Your task to perform on an android device: Search for seafood restaurants on Google Maps Image 0: 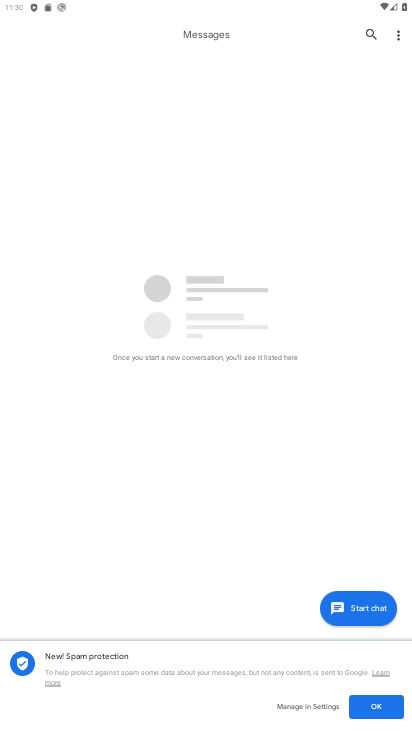
Step 0: press home button
Your task to perform on an android device: Search for seafood restaurants on Google Maps Image 1: 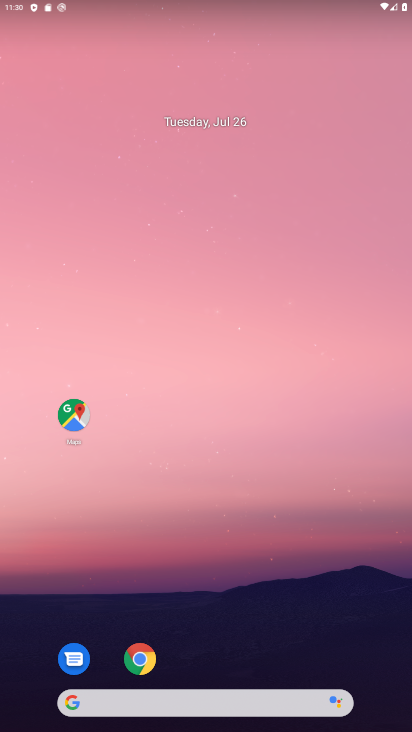
Step 1: drag from (196, 591) to (221, 152)
Your task to perform on an android device: Search for seafood restaurants on Google Maps Image 2: 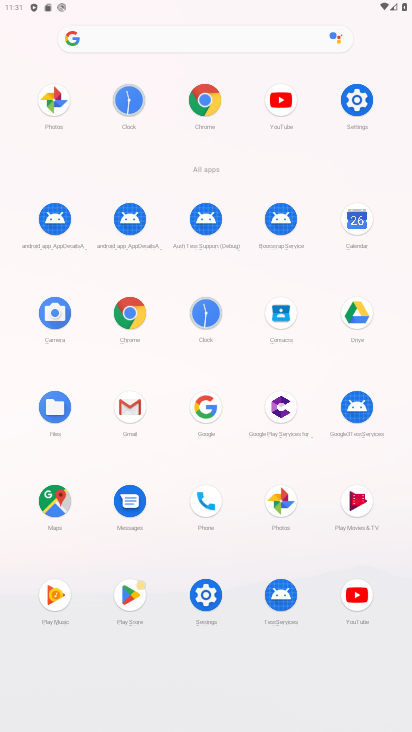
Step 2: click (60, 515)
Your task to perform on an android device: Search for seafood restaurants on Google Maps Image 3: 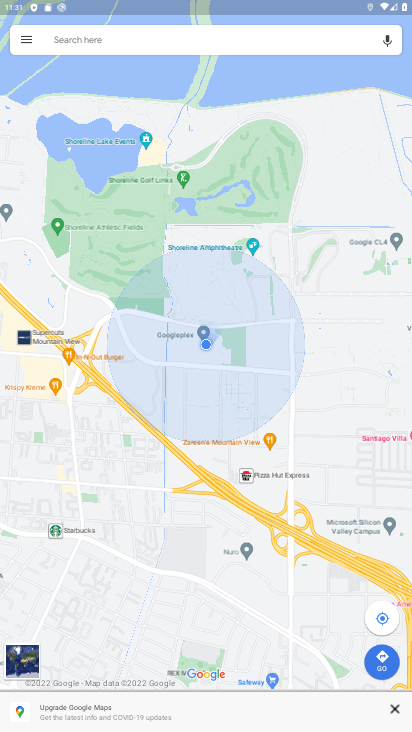
Step 3: click (151, 48)
Your task to perform on an android device: Search for seafood restaurants on Google Maps Image 4: 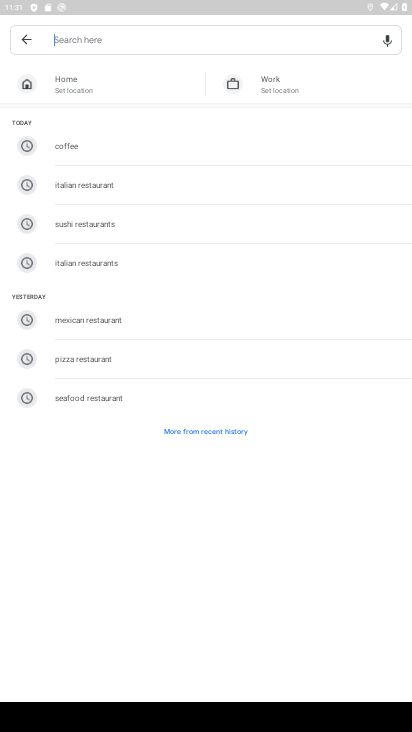
Step 4: click (89, 400)
Your task to perform on an android device: Search for seafood restaurants on Google Maps Image 5: 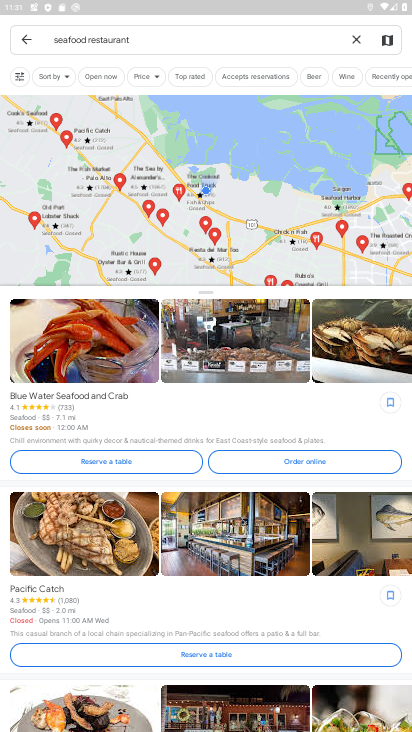
Step 5: task complete